Your task to perform on an android device: turn pop-ups off in chrome Image 0: 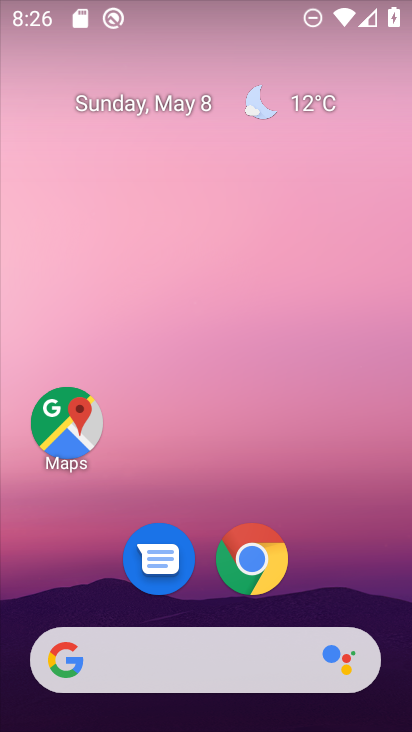
Step 0: click (258, 564)
Your task to perform on an android device: turn pop-ups off in chrome Image 1: 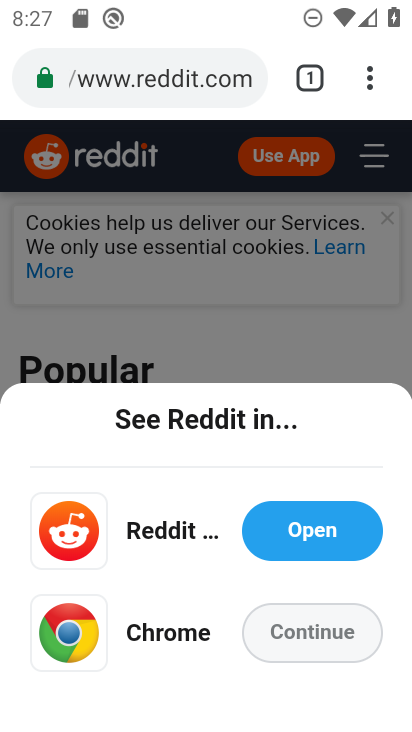
Step 1: drag from (379, 80) to (112, 617)
Your task to perform on an android device: turn pop-ups off in chrome Image 2: 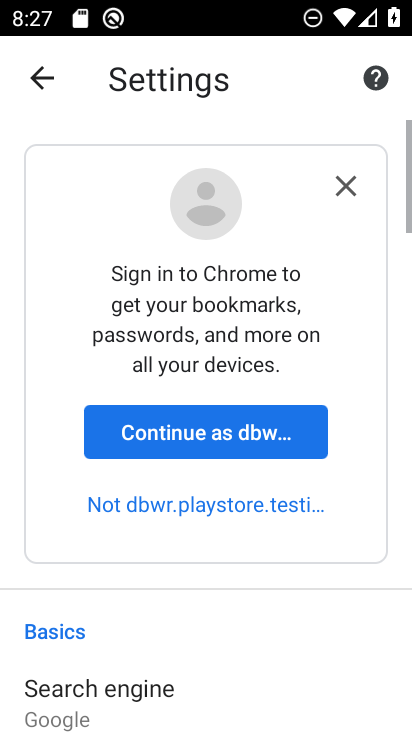
Step 2: drag from (165, 579) to (188, 86)
Your task to perform on an android device: turn pop-ups off in chrome Image 3: 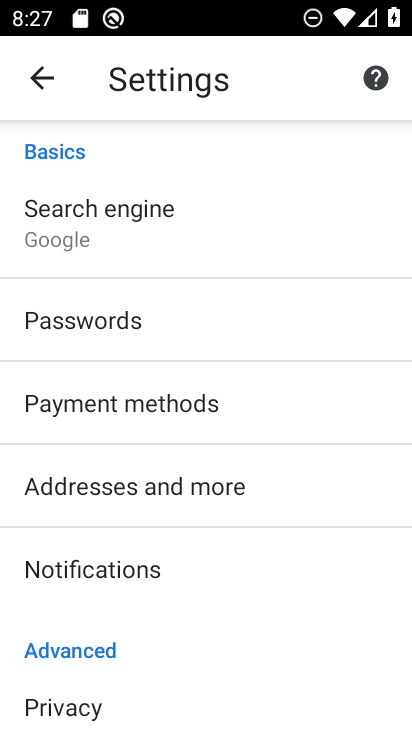
Step 3: drag from (158, 600) to (165, 291)
Your task to perform on an android device: turn pop-ups off in chrome Image 4: 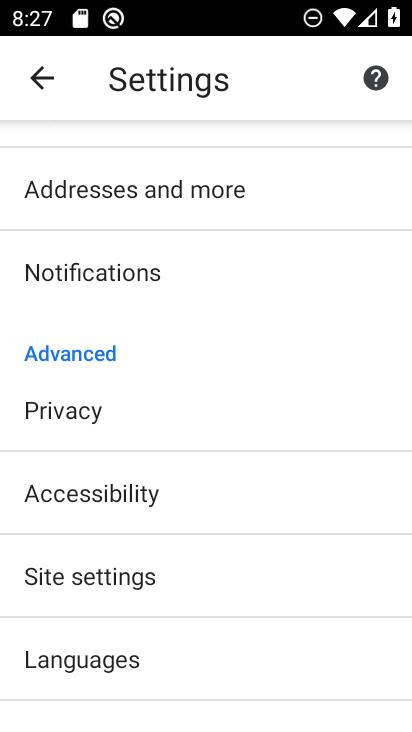
Step 4: click (88, 567)
Your task to perform on an android device: turn pop-ups off in chrome Image 5: 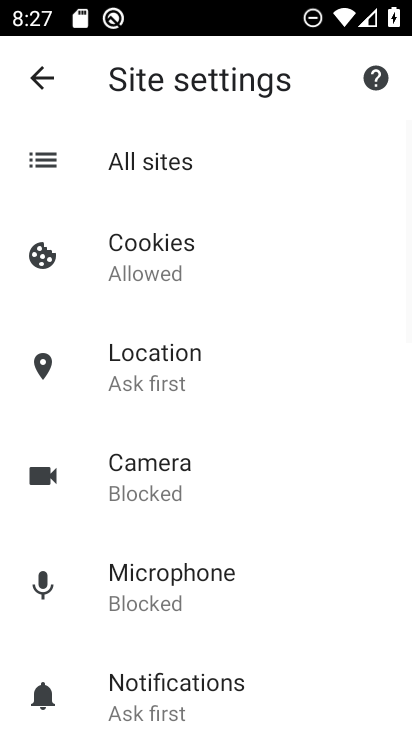
Step 5: drag from (213, 583) to (215, 323)
Your task to perform on an android device: turn pop-ups off in chrome Image 6: 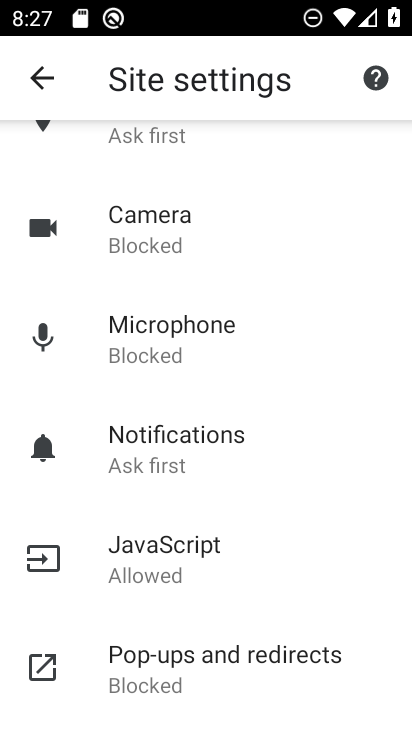
Step 6: click (170, 663)
Your task to perform on an android device: turn pop-ups off in chrome Image 7: 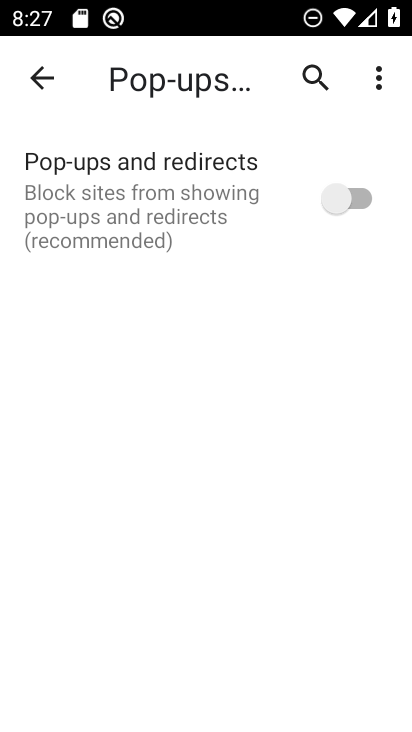
Step 7: task complete